Your task to perform on an android device: Open calendar and show me the first week of next month Image 0: 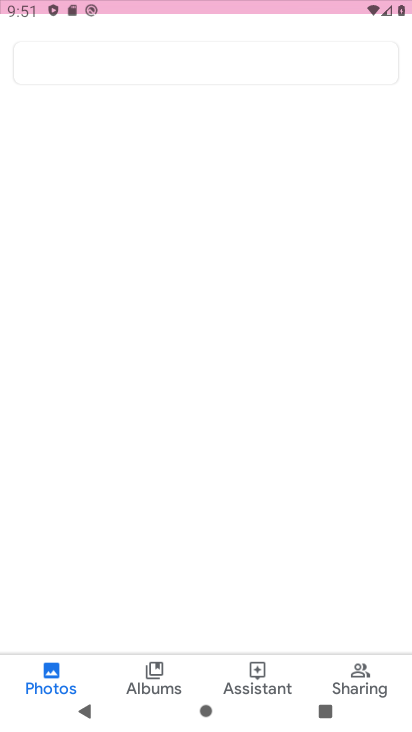
Step 0: press home button
Your task to perform on an android device: Open calendar and show me the first week of next month Image 1: 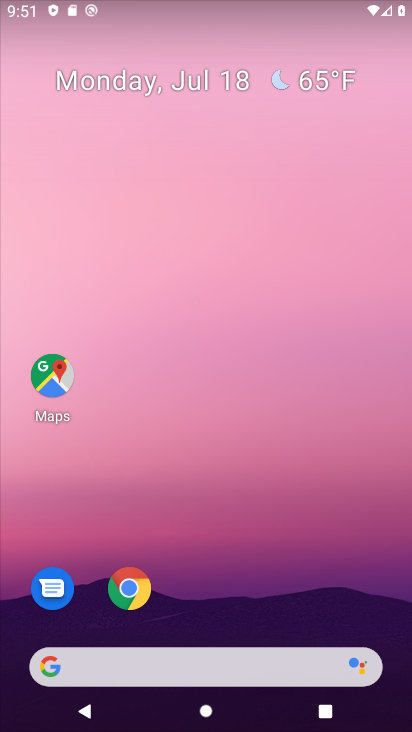
Step 1: drag from (246, 621) to (276, 28)
Your task to perform on an android device: Open calendar and show me the first week of next month Image 2: 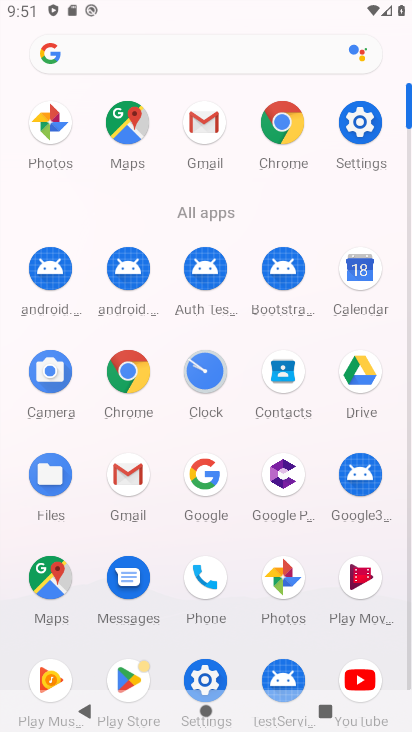
Step 2: click (359, 270)
Your task to perform on an android device: Open calendar and show me the first week of next month Image 3: 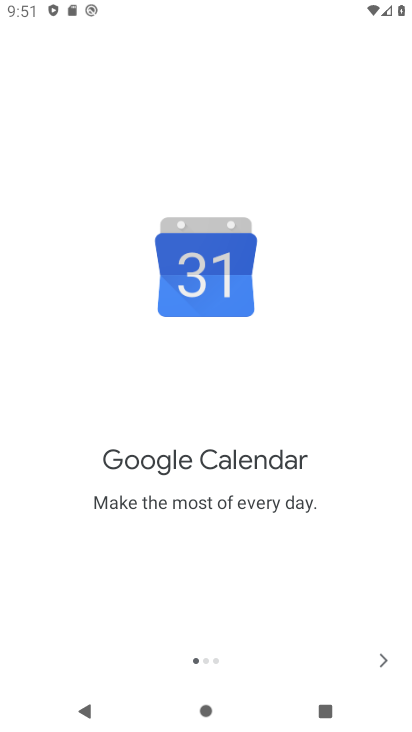
Step 3: click (382, 658)
Your task to perform on an android device: Open calendar and show me the first week of next month Image 4: 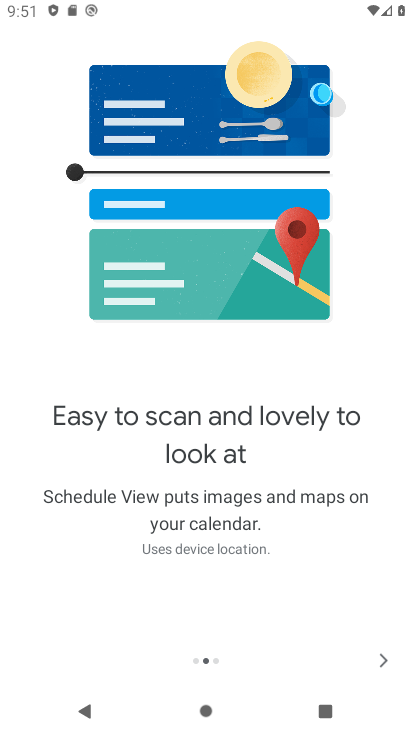
Step 4: click (382, 658)
Your task to perform on an android device: Open calendar and show me the first week of next month Image 5: 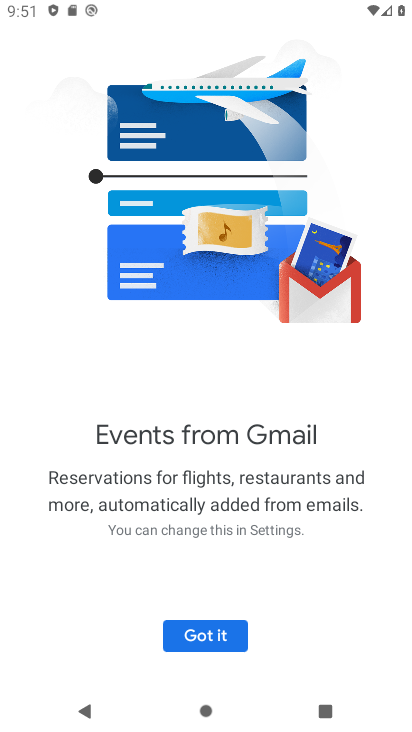
Step 5: click (209, 640)
Your task to perform on an android device: Open calendar and show me the first week of next month Image 6: 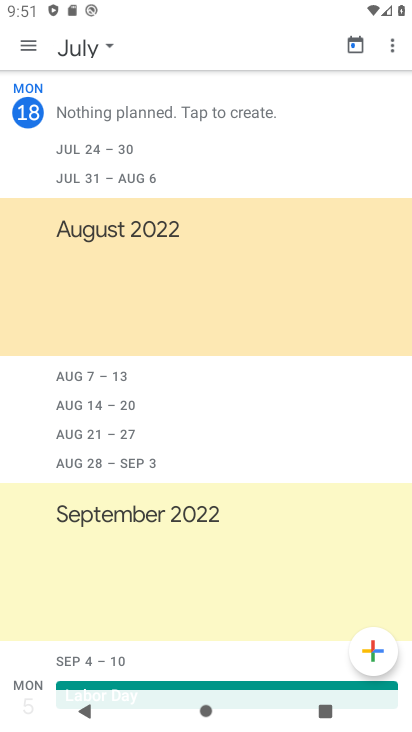
Step 6: click (107, 45)
Your task to perform on an android device: Open calendar and show me the first week of next month Image 7: 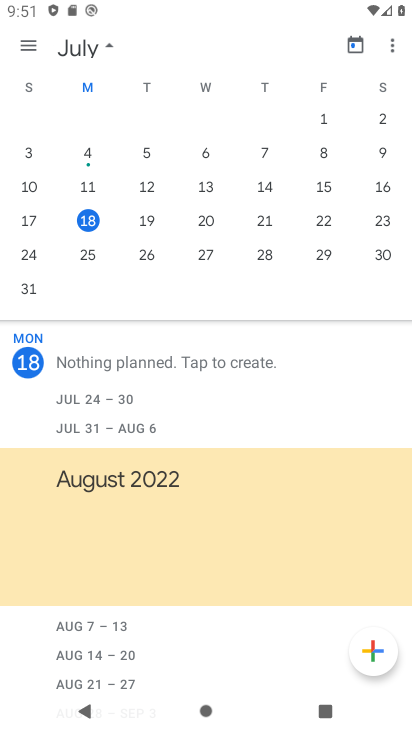
Step 7: drag from (321, 204) to (0, 126)
Your task to perform on an android device: Open calendar and show me the first week of next month Image 8: 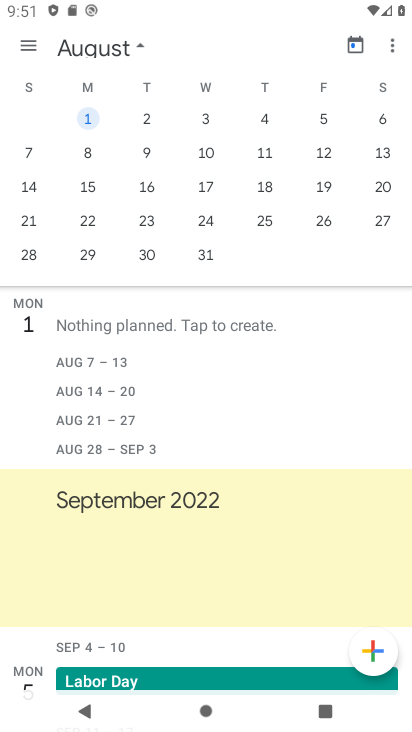
Step 8: click (87, 115)
Your task to perform on an android device: Open calendar and show me the first week of next month Image 9: 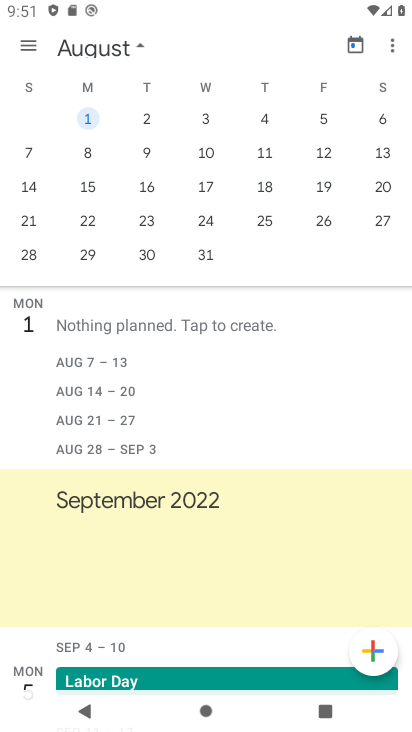
Step 9: click (146, 121)
Your task to perform on an android device: Open calendar and show me the first week of next month Image 10: 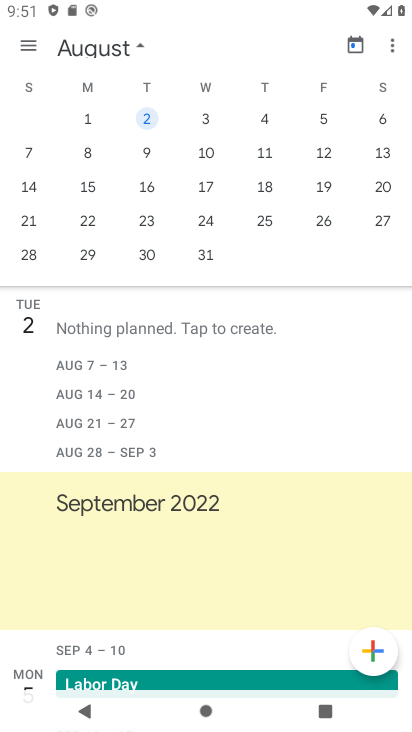
Step 10: click (215, 123)
Your task to perform on an android device: Open calendar and show me the first week of next month Image 11: 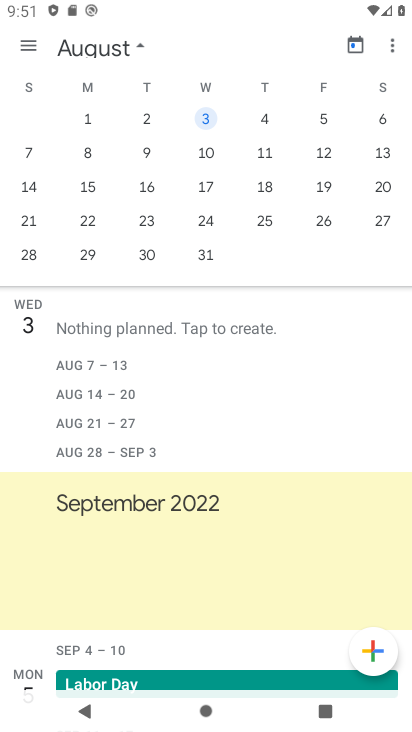
Step 11: click (269, 120)
Your task to perform on an android device: Open calendar and show me the first week of next month Image 12: 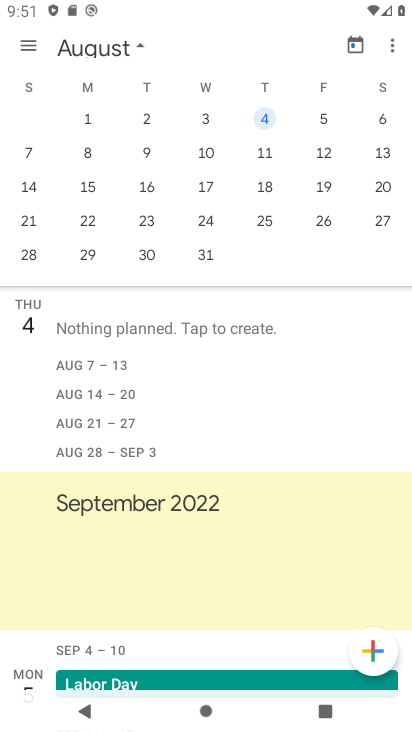
Step 12: click (325, 116)
Your task to perform on an android device: Open calendar and show me the first week of next month Image 13: 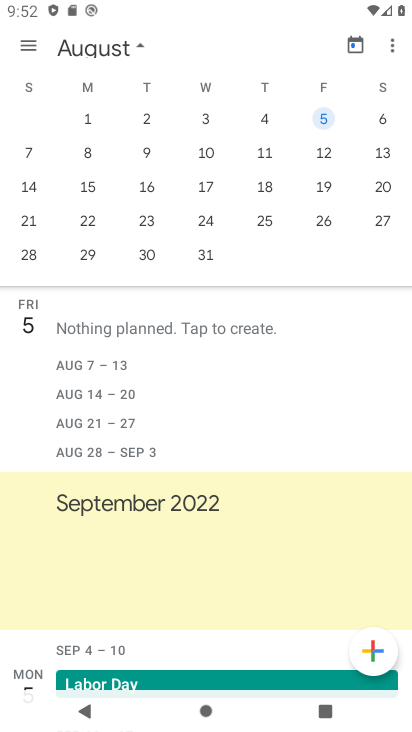
Step 13: click (387, 124)
Your task to perform on an android device: Open calendar and show me the first week of next month Image 14: 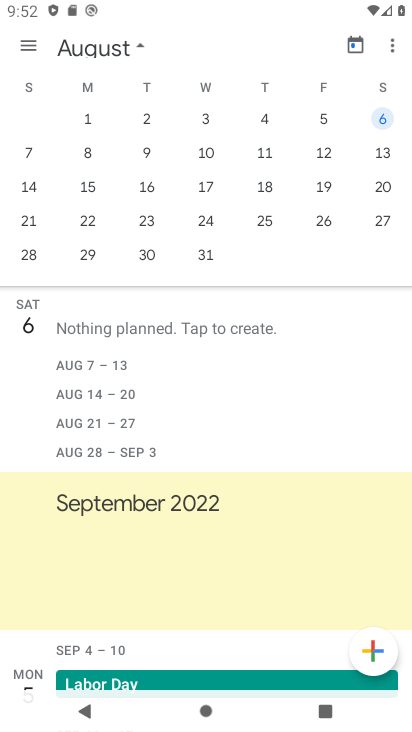
Step 14: click (28, 153)
Your task to perform on an android device: Open calendar and show me the first week of next month Image 15: 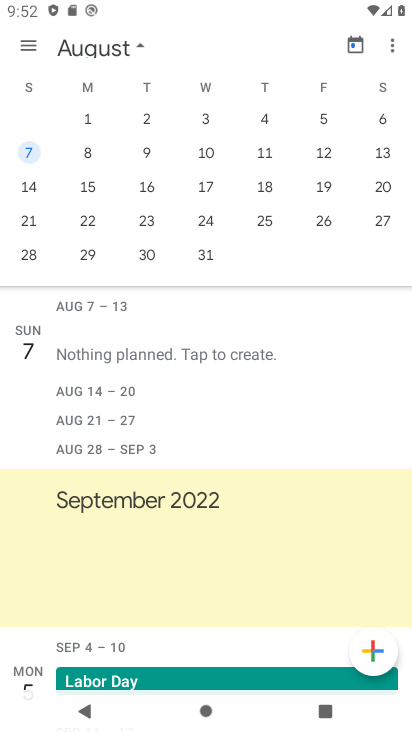
Step 15: task complete